Your task to perform on an android device: Go to Google maps Image 0: 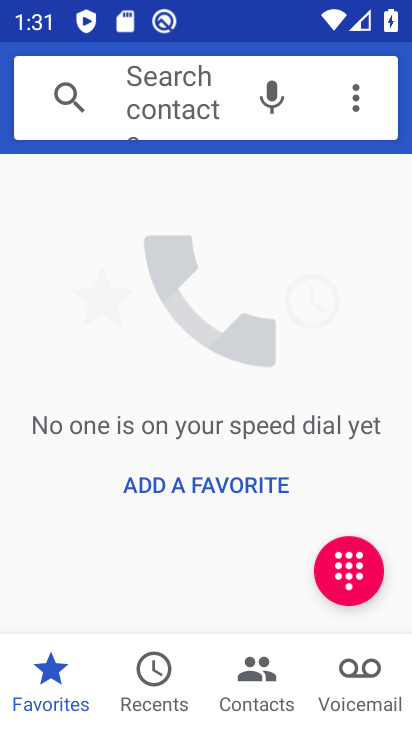
Step 0: press home button
Your task to perform on an android device: Go to Google maps Image 1: 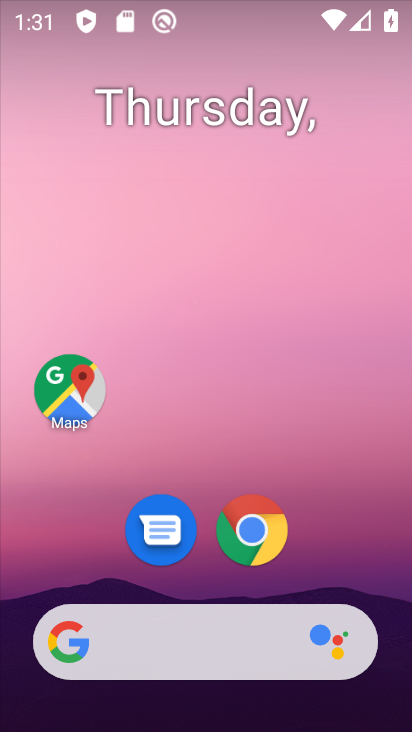
Step 1: drag from (206, 716) to (235, 2)
Your task to perform on an android device: Go to Google maps Image 2: 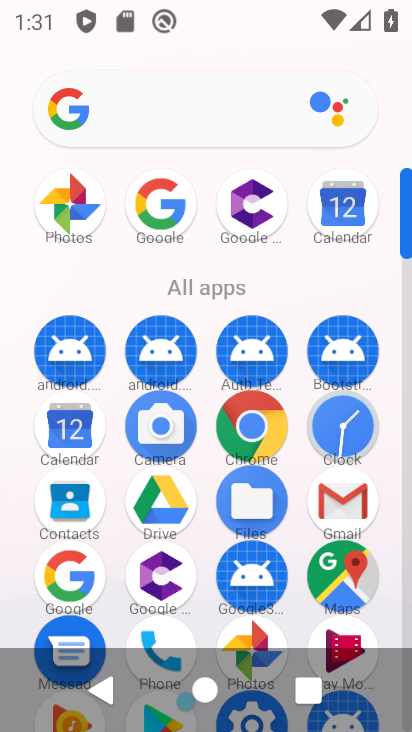
Step 2: click (349, 576)
Your task to perform on an android device: Go to Google maps Image 3: 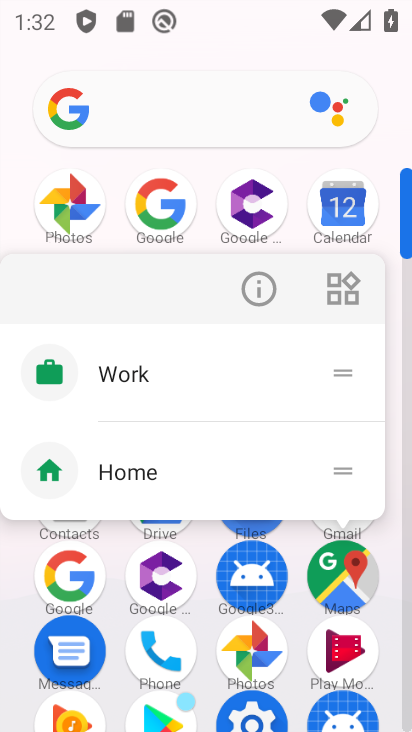
Step 3: click (349, 575)
Your task to perform on an android device: Go to Google maps Image 4: 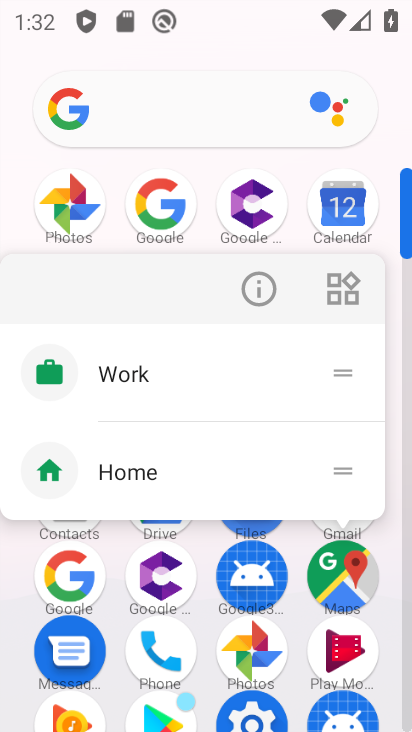
Step 4: click (349, 575)
Your task to perform on an android device: Go to Google maps Image 5: 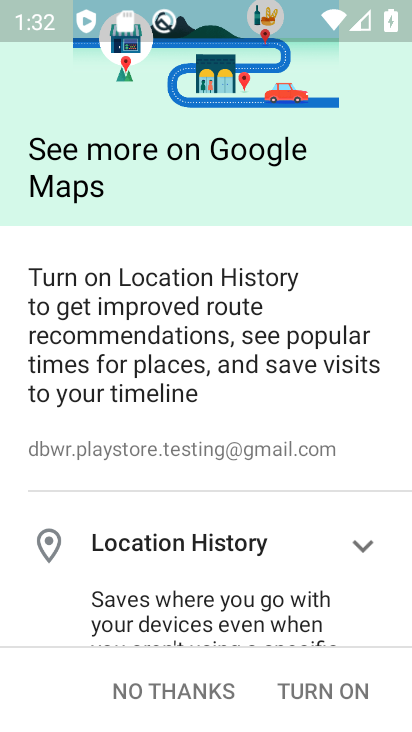
Step 5: click (220, 685)
Your task to perform on an android device: Go to Google maps Image 6: 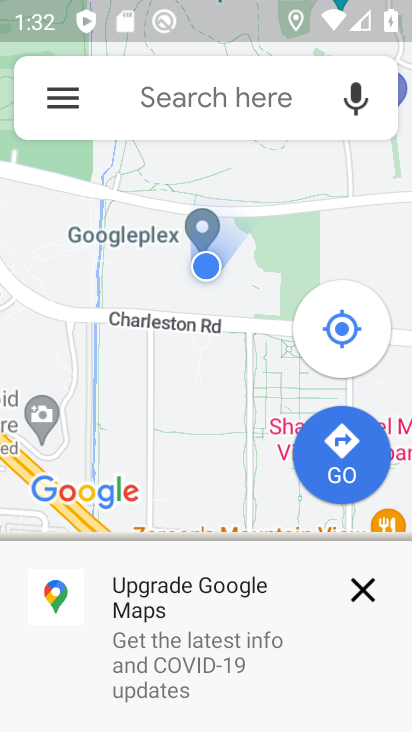
Step 6: task complete